Your task to perform on an android device: set default search engine in the chrome app Image 0: 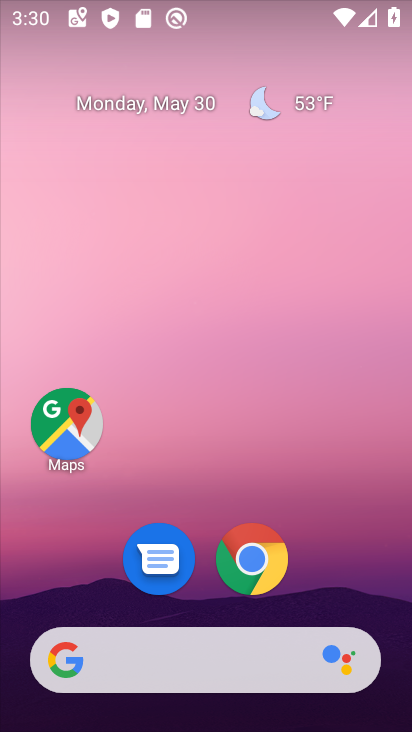
Step 0: click (256, 552)
Your task to perform on an android device: set default search engine in the chrome app Image 1: 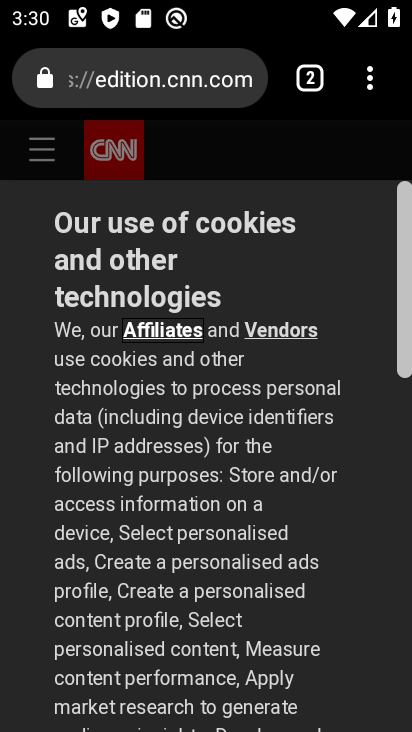
Step 1: click (371, 87)
Your task to perform on an android device: set default search engine in the chrome app Image 2: 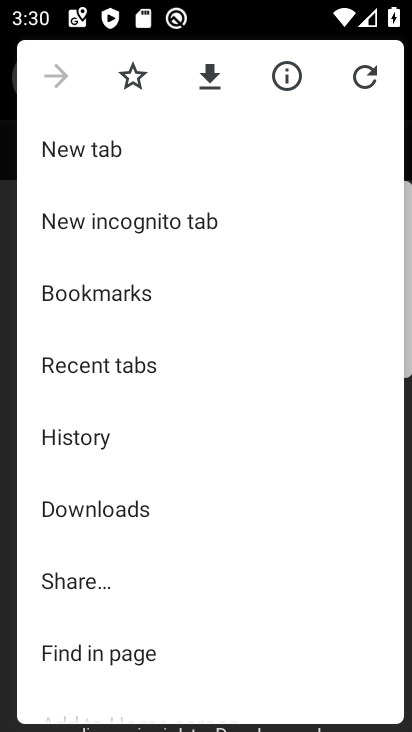
Step 2: drag from (103, 674) to (108, 204)
Your task to perform on an android device: set default search engine in the chrome app Image 3: 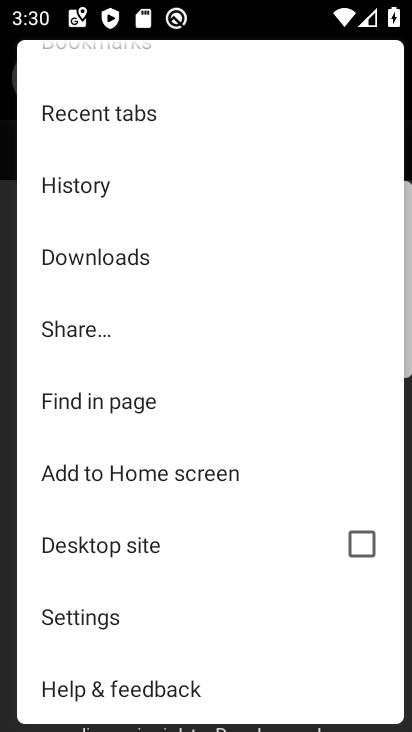
Step 3: click (85, 618)
Your task to perform on an android device: set default search engine in the chrome app Image 4: 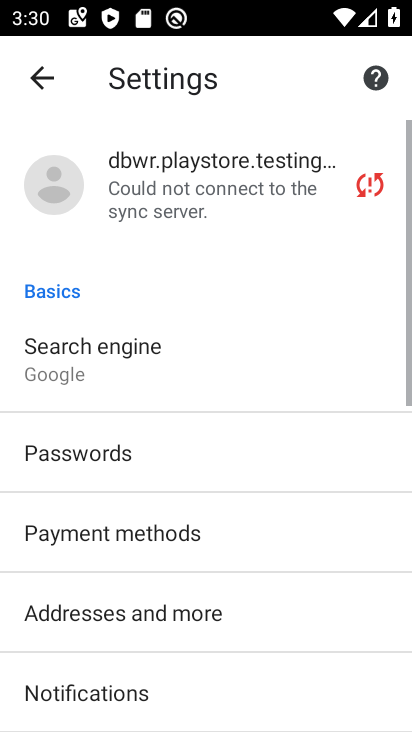
Step 4: drag from (174, 634) to (211, 653)
Your task to perform on an android device: set default search engine in the chrome app Image 5: 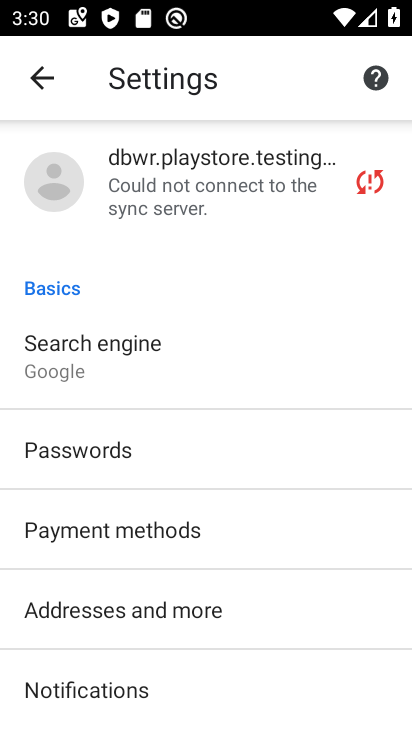
Step 5: click (73, 358)
Your task to perform on an android device: set default search engine in the chrome app Image 6: 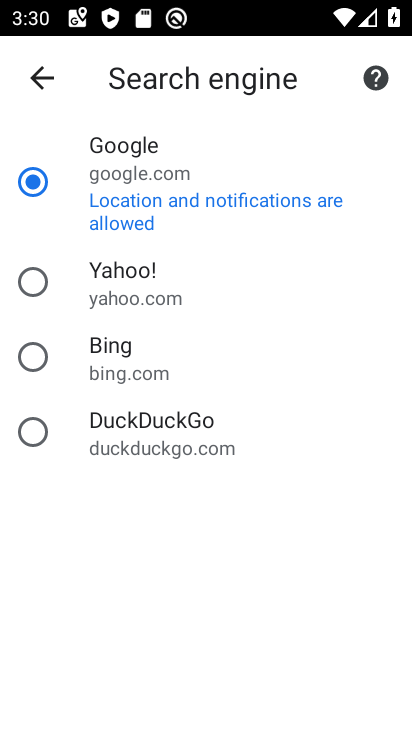
Step 6: click (33, 278)
Your task to perform on an android device: set default search engine in the chrome app Image 7: 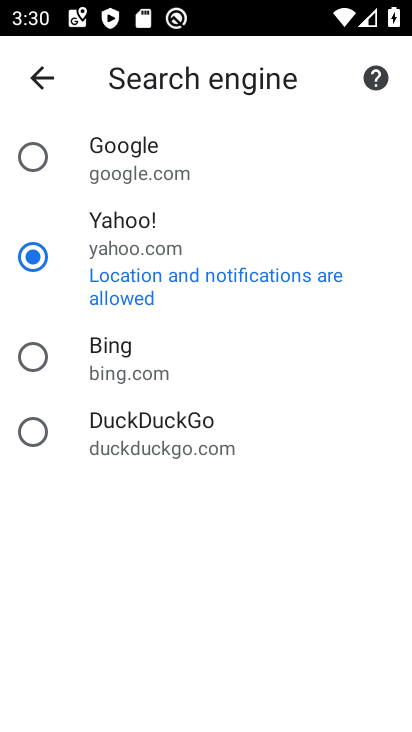
Step 7: task complete